Your task to perform on an android device: Open Chrome and go to the settings page Image 0: 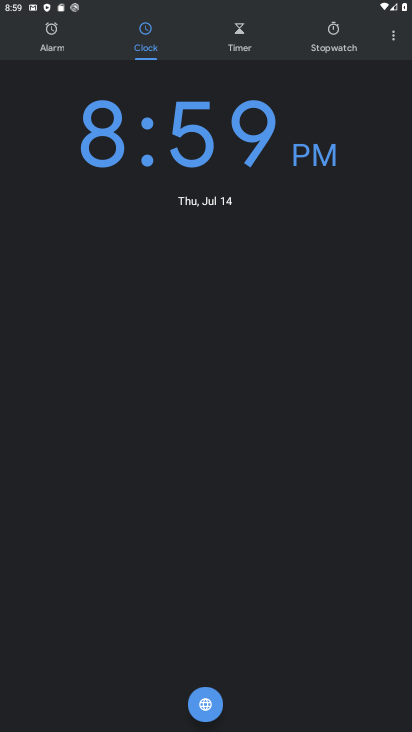
Step 0: press home button
Your task to perform on an android device: Open Chrome and go to the settings page Image 1: 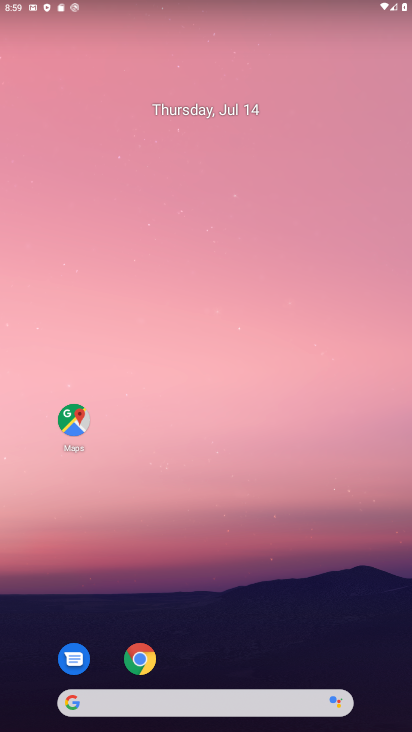
Step 1: click (150, 661)
Your task to perform on an android device: Open Chrome and go to the settings page Image 2: 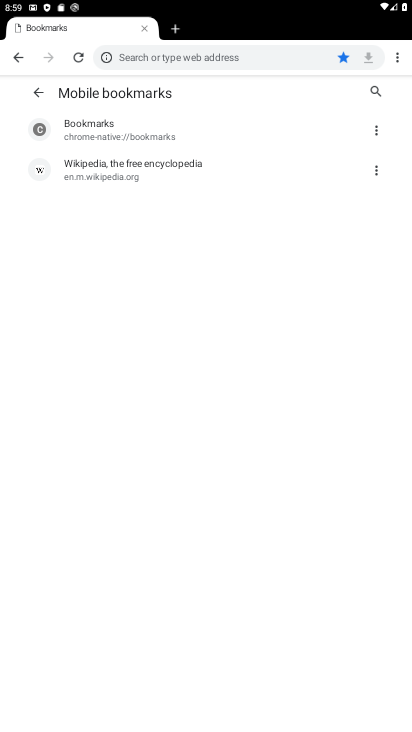
Step 2: task complete